Your task to perform on an android device: open app "Spotify: Music and Podcasts" Image 0: 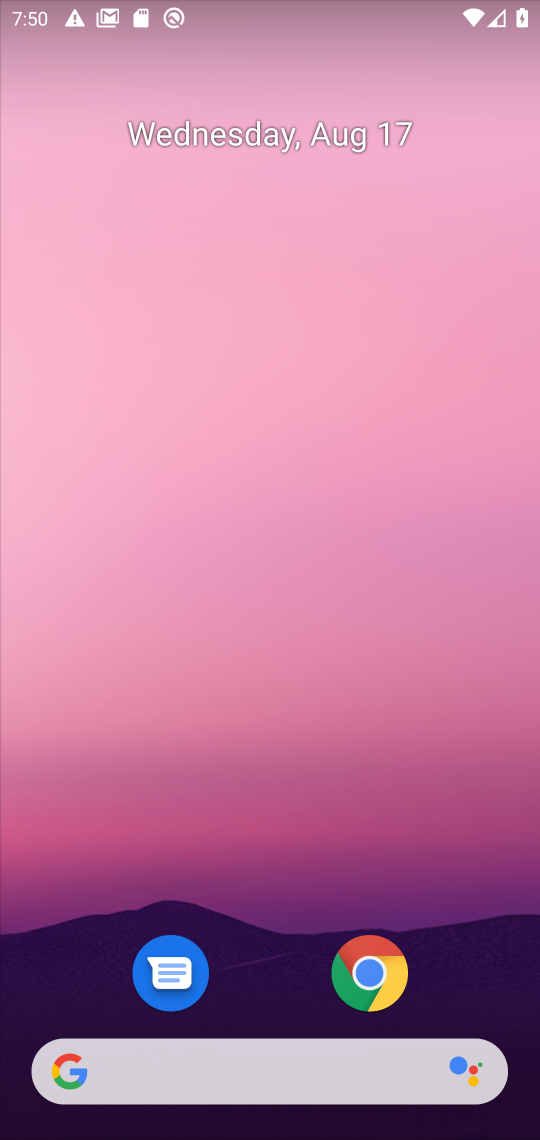
Step 0: drag from (274, 1077) to (282, 250)
Your task to perform on an android device: open app "Spotify: Music and Podcasts" Image 1: 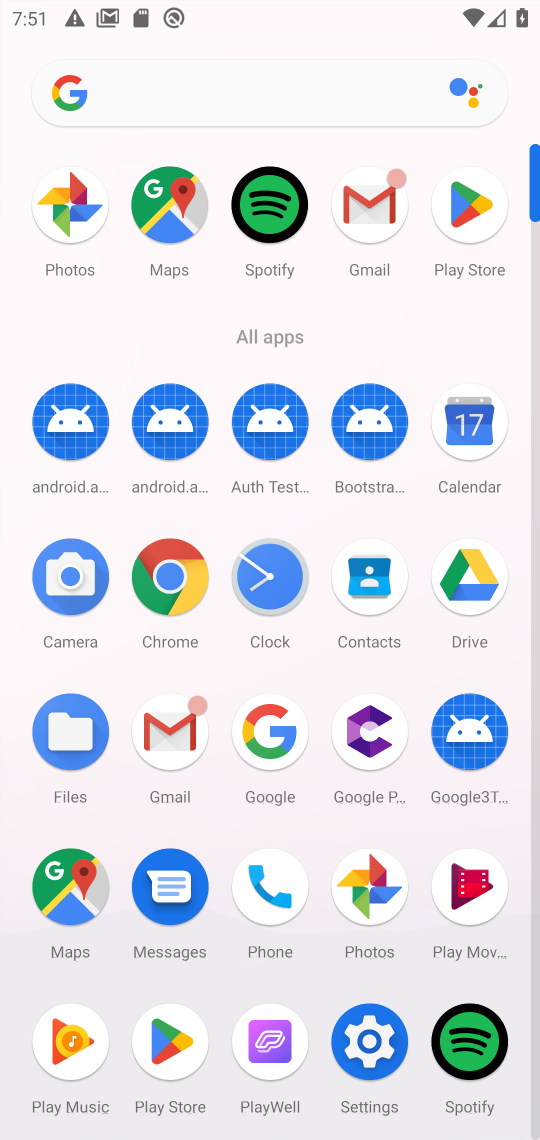
Step 1: click (277, 218)
Your task to perform on an android device: open app "Spotify: Music and Podcasts" Image 2: 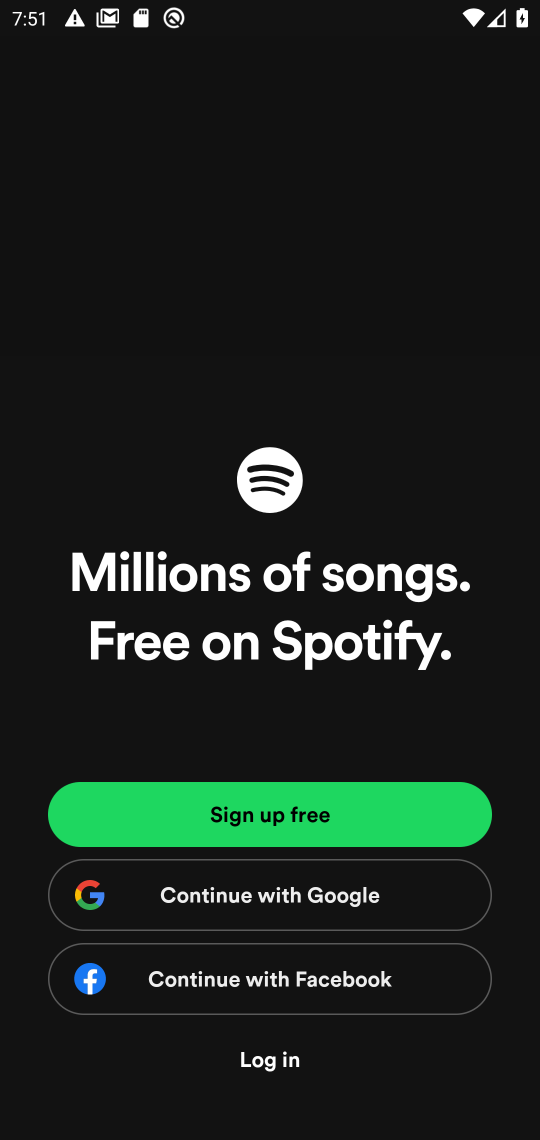
Step 2: task complete